Your task to perform on an android device: turn on showing notifications on the lock screen Image 0: 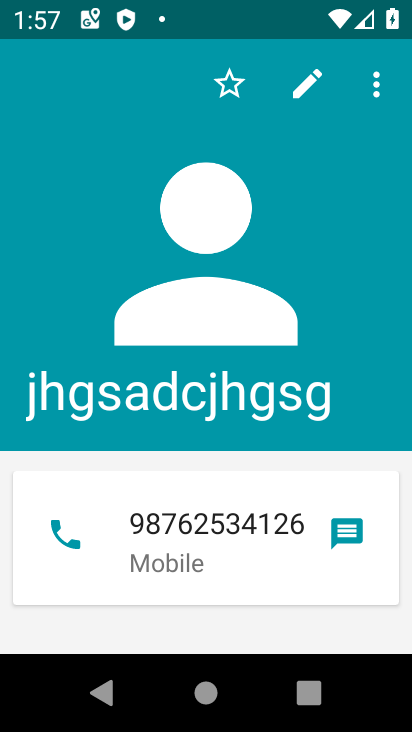
Step 0: press home button
Your task to perform on an android device: turn on showing notifications on the lock screen Image 1: 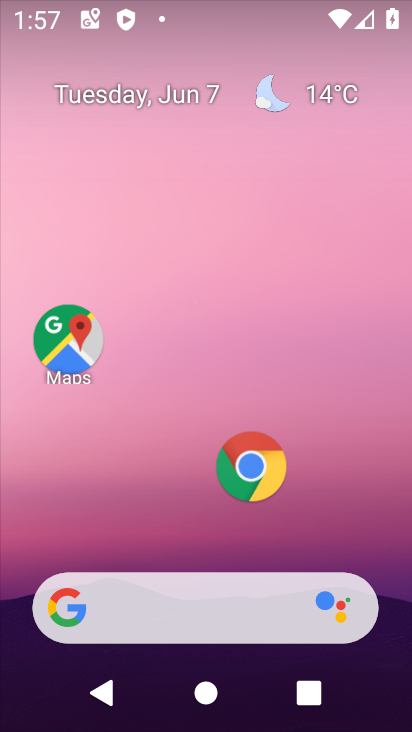
Step 1: drag from (156, 710) to (172, 108)
Your task to perform on an android device: turn on showing notifications on the lock screen Image 2: 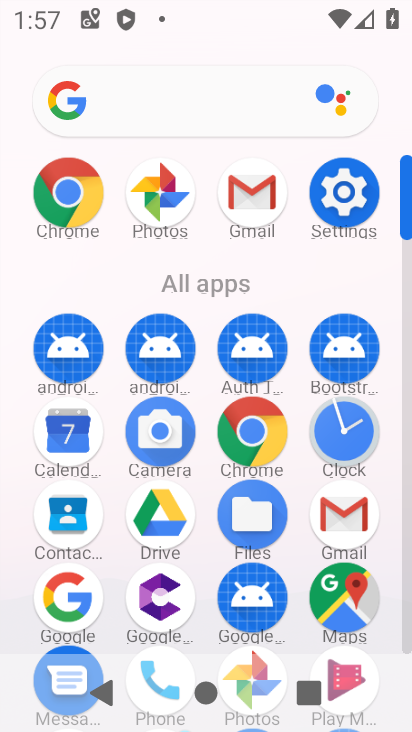
Step 2: click (341, 212)
Your task to perform on an android device: turn on showing notifications on the lock screen Image 3: 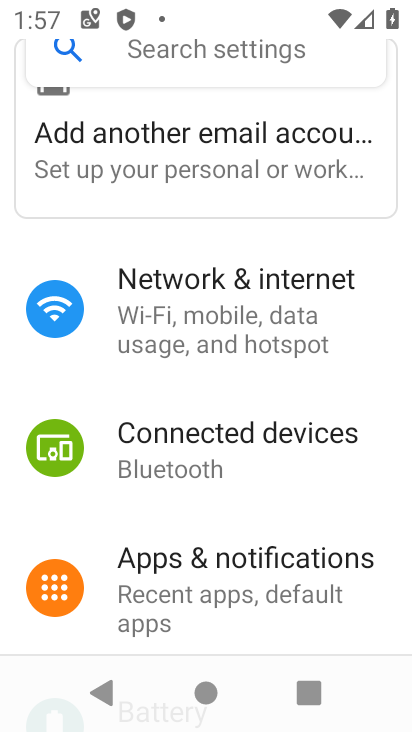
Step 3: click (224, 575)
Your task to perform on an android device: turn on showing notifications on the lock screen Image 4: 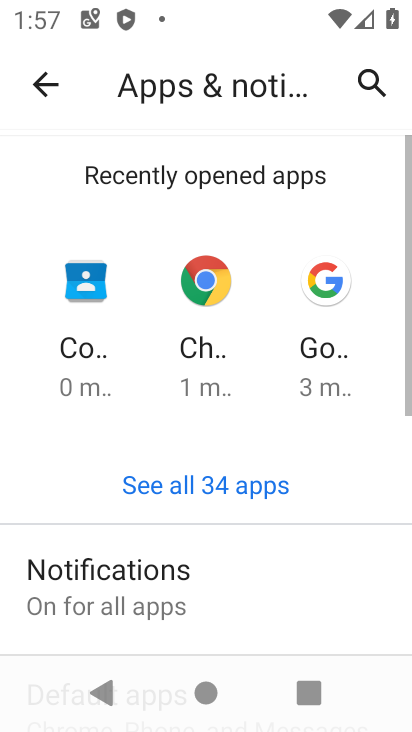
Step 4: click (174, 591)
Your task to perform on an android device: turn on showing notifications on the lock screen Image 5: 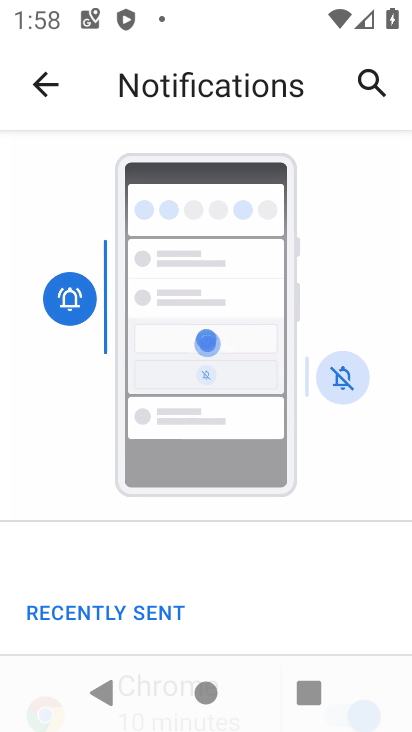
Step 5: drag from (242, 598) to (230, 189)
Your task to perform on an android device: turn on showing notifications on the lock screen Image 6: 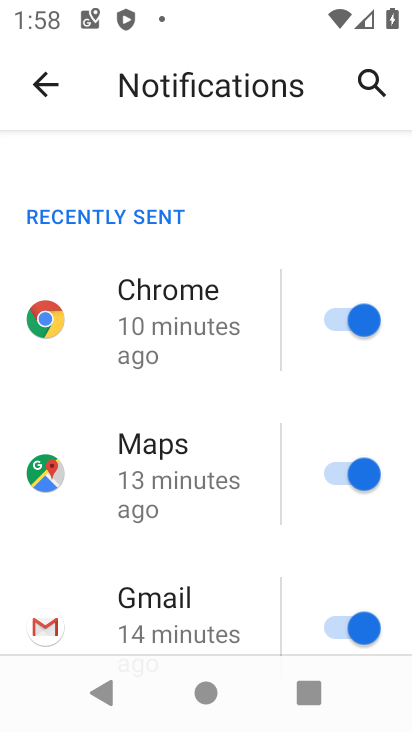
Step 6: drag from (222, 597) to (220, 235)
Your task to perform on an android device: turn on showing notifications on the lock screen Image 7: 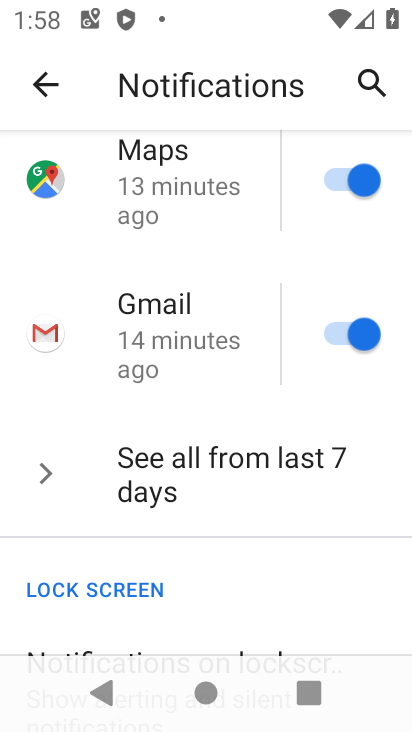
Step 7: drag from (197, 606) to (195, 364)
Your task to perform on an android device: turn on showing notifications on the lock screen Image 8: 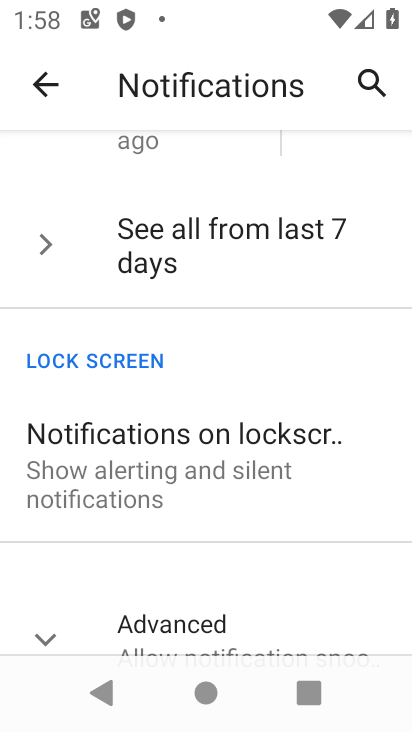
Step 8: click (209, 502)
Your task to perform on an android device: turn on showing notifications on the lock screen Image 9: 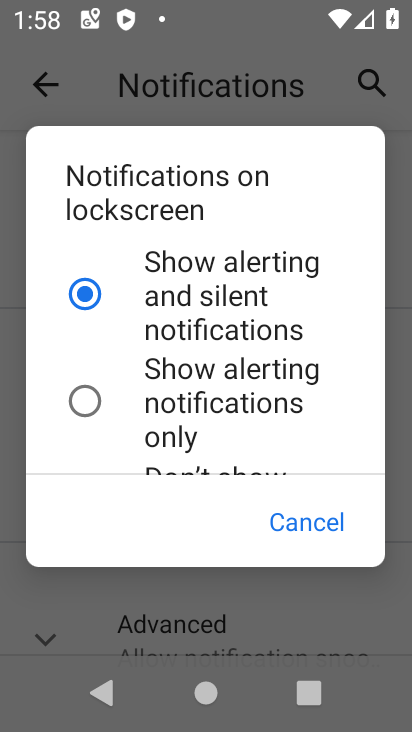
Step 9: task complete